Your task to perform on an android device: turn on improve location accuracy Image 0: 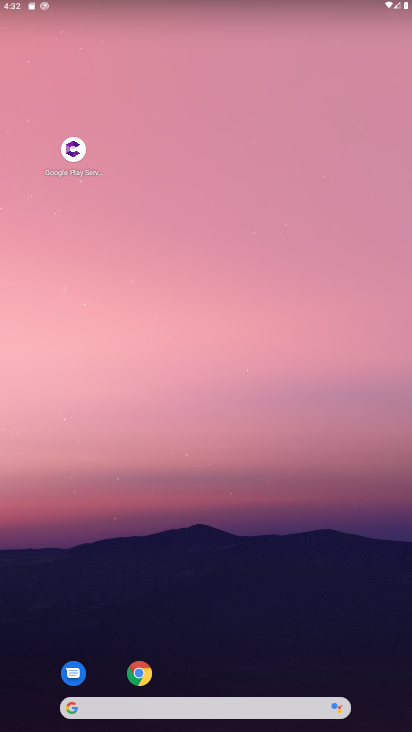
Step 0: drag from (339, 657) to (220, 121)
Your task to perform on an android device: turn on improve location accuracy Image 1: 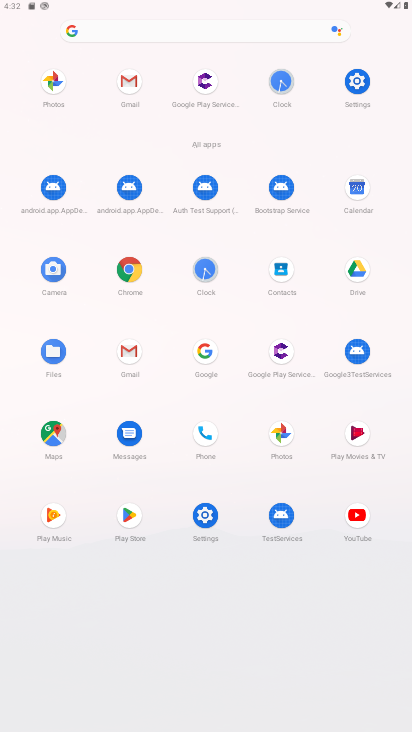
Step 1: click (350, 79)
Your task to perform on an android device: turn on improve location accuracy Image 2: 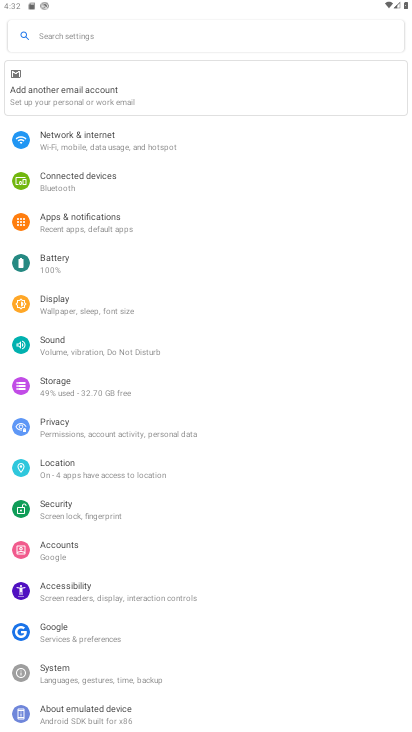
Step 2: click (81, 470)
Your task to perform on an android device: turn on improve location accuracy Image 3: 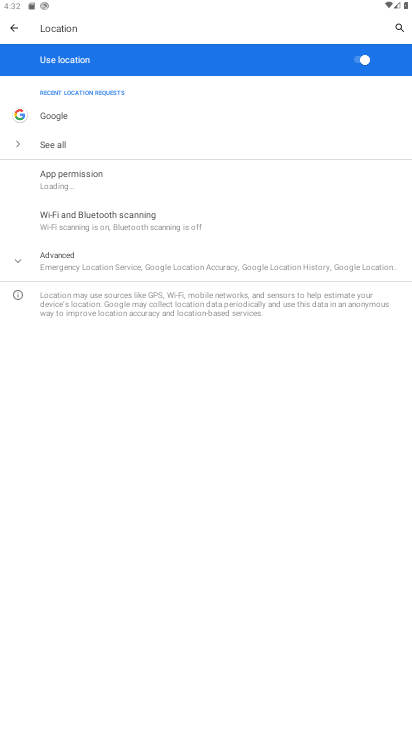
Step 3: click (99, 270)
Your task to perform on an android device: turn on improve location accuracy Image 4: 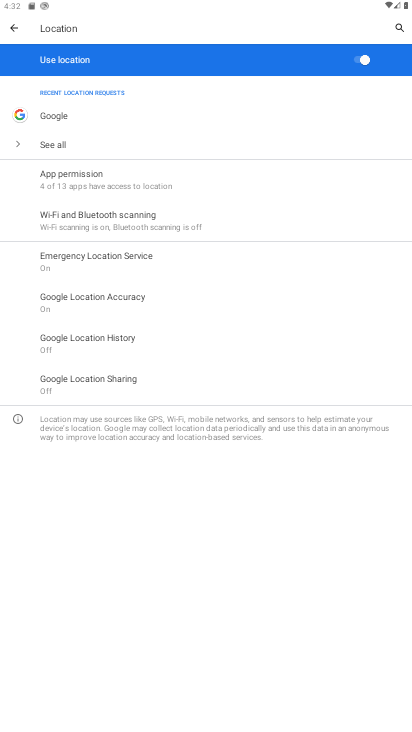
Step 4: task complete